Your task to perform on an android device: empty trash in google photos Image 0: 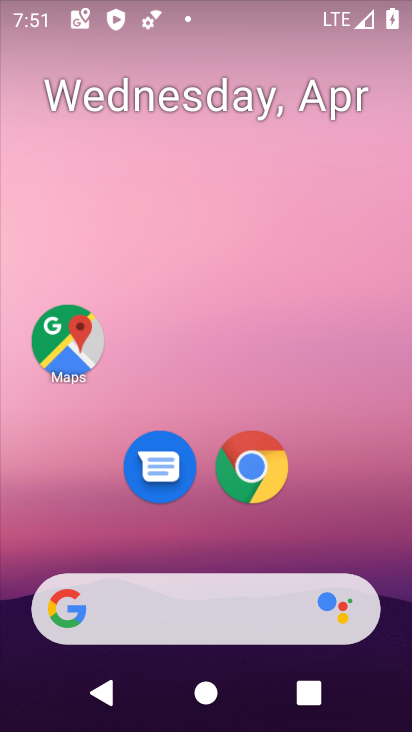
Step 0: drag from (201, 557) to (397, 588)
Your task to perform on an android device: empty trash in google photos Image 1: 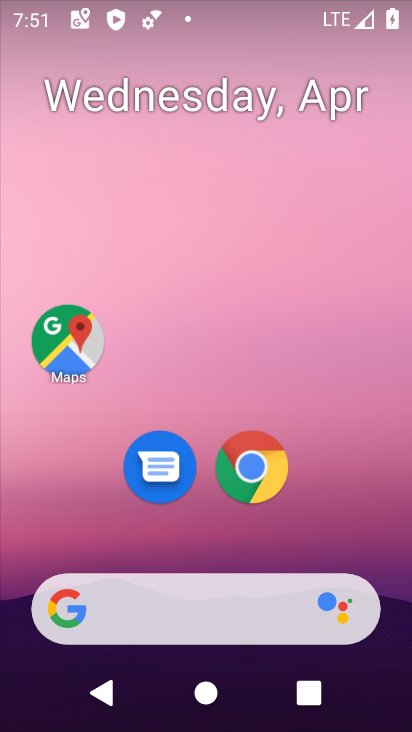
Step 1: drag from (232, 545) to (318, 30)
Your task to perform on an android device: empty trash in google photos Image 2: 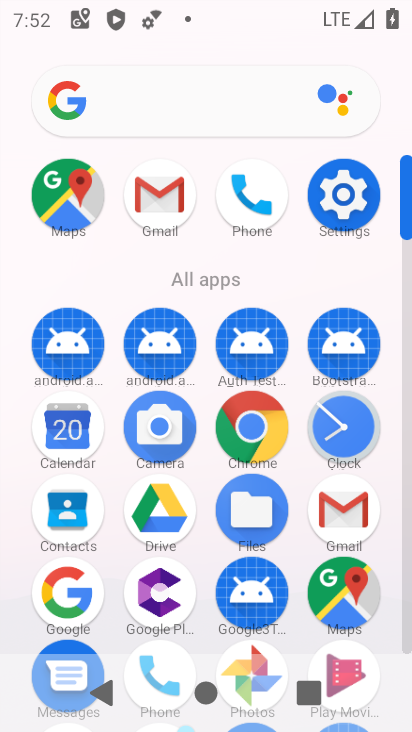
Step 2: click (264, 644)
Your task to perform on an android device: empty trash in google photos Image 3: 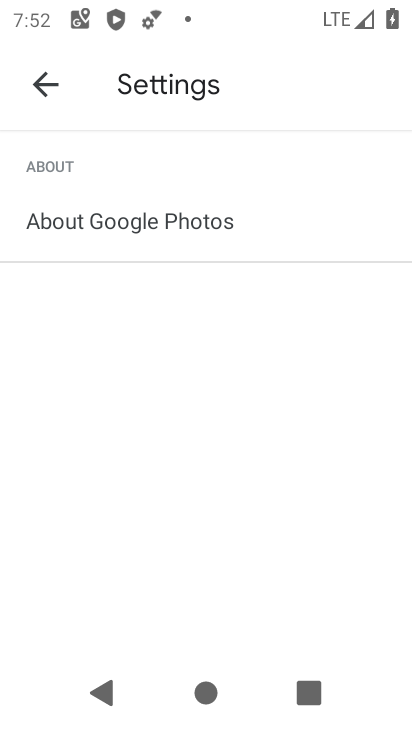
Step 3: click (42, 73)
Your task to perform on an android device: empty trash in google photos Image 4: 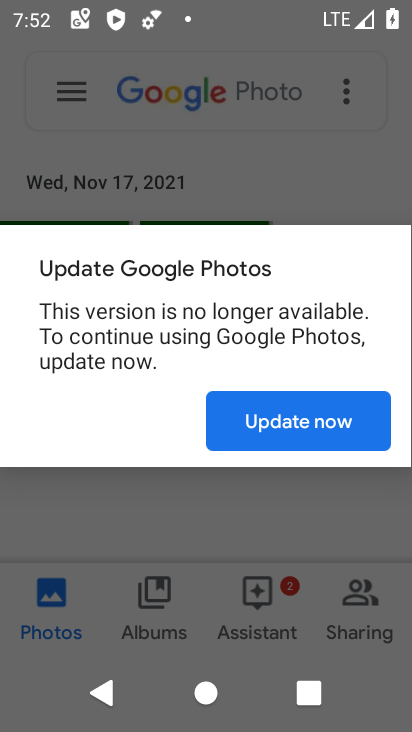
Step 4: click (299, 437)
Your task to perform on an android device: empty trash in google photos Image 5: 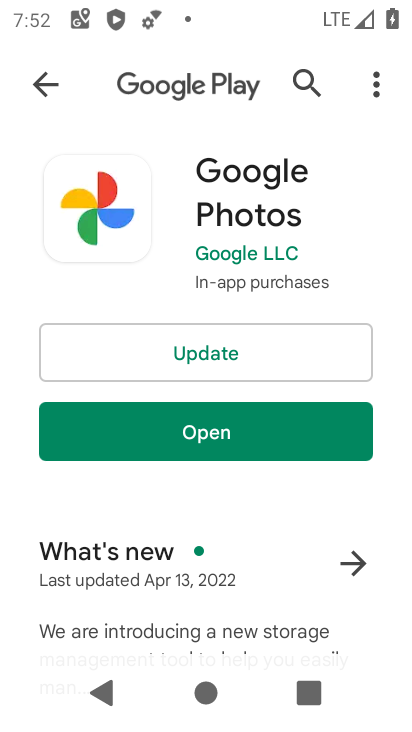
Step 5: click (257, 436)
Your task to perform on an android device: empty trash in google photos Image 6: 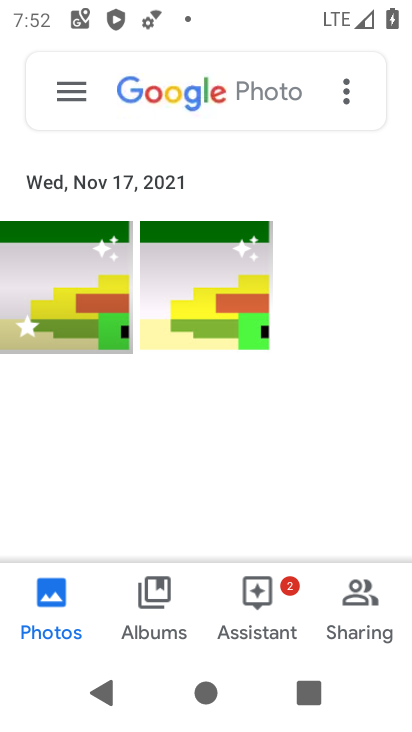
Step 6: click (71, 98)
Your task to perform on an android device: empty trash in google photos Image 7: 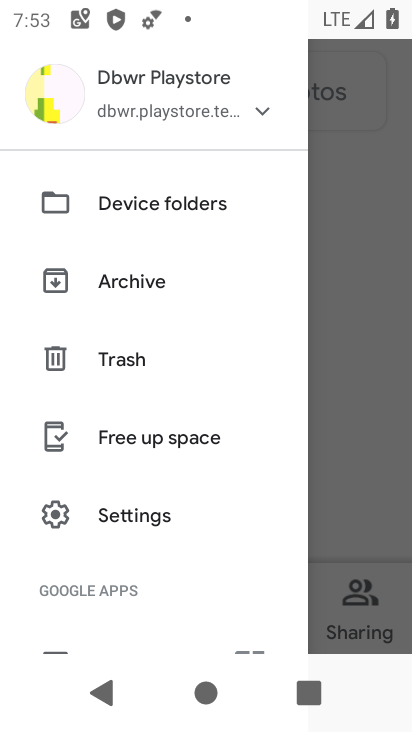
Step 7: click (96, 361)
Your task to perform on an android device: empty trash in google photos Image 8: 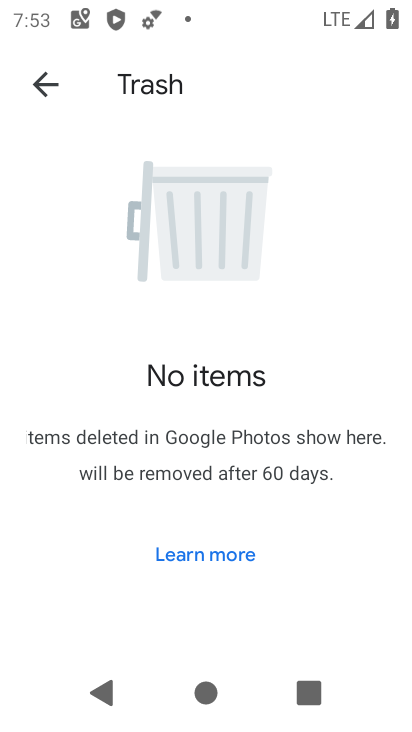
Step 8: task complete